Your task to perform on an android device: Go to network settings Image 0: 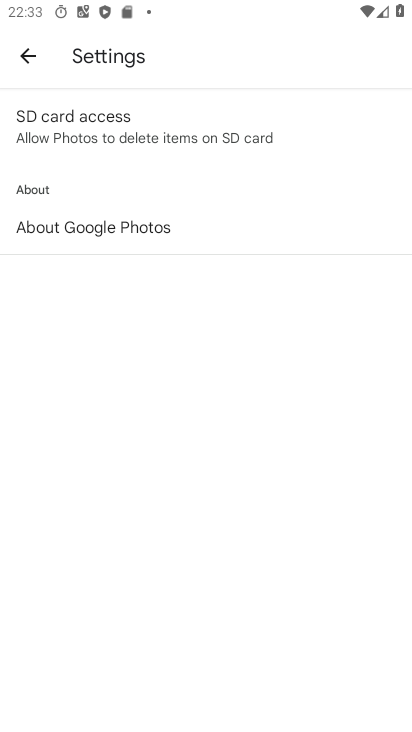
Step 0: press home button
Your task to perform on an android device: Go to network settings Image 1: 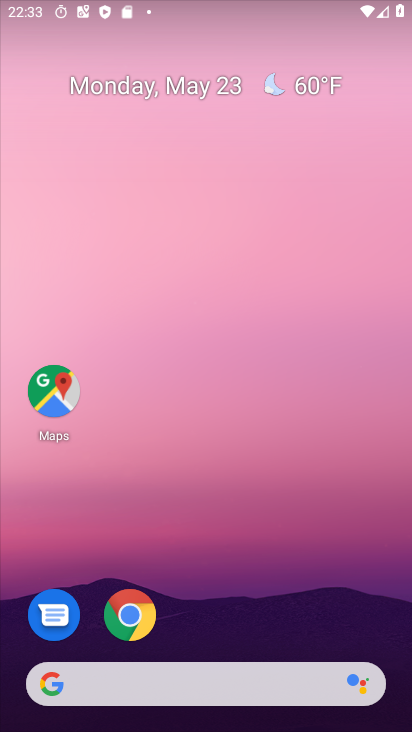
Step 1: drag from (272, 548) to (296, 87)
Your task to perform on an android device: Go to network settings Image 2: 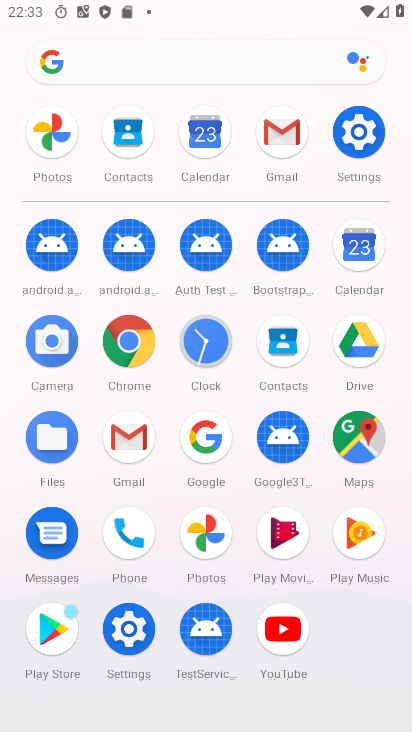
Step 2: click (361, 138)
Your task to perform on an android device: Go to network settings Image 3: 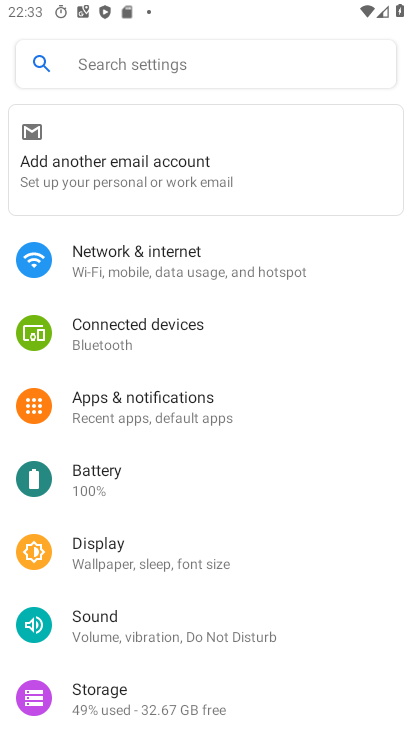
Step 3: click (136, 262)
Your task to perform on an android device: Go to network settings Image 4: 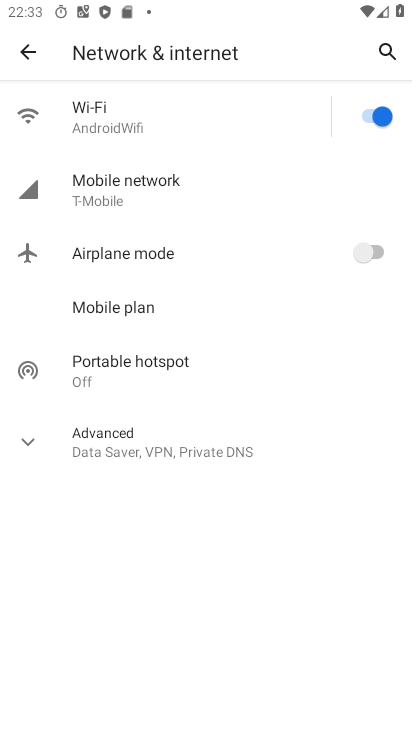
Step 4: click (105, 209)
Your task to perform on an android device: Go to network settings Image 5: 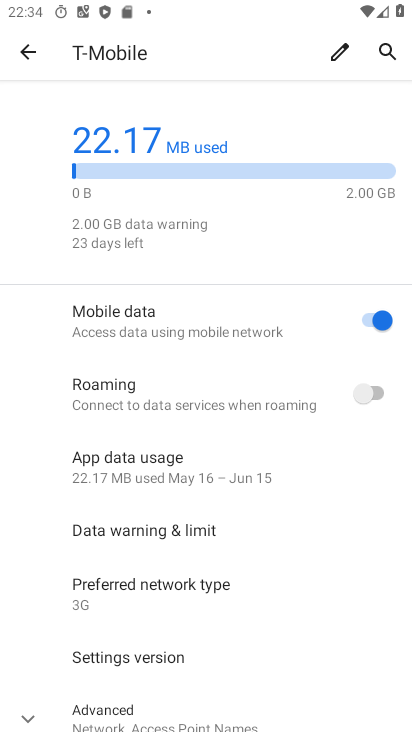
Step 5: task complete